Your task to perform on an android device: Open the calendar app, open the side menu, and click the "Day" option Image 0: 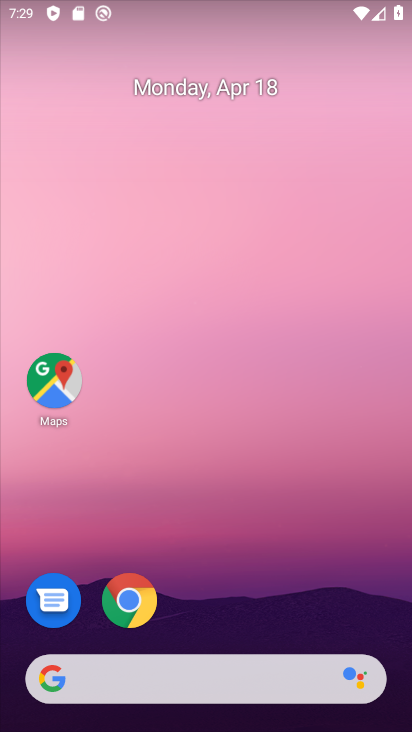
Step 0: drag from (205, 620) to (160, 104)
Your task to perform on an android device: Open the calendar app, open the side menu, and click the "Day" option Image 1: 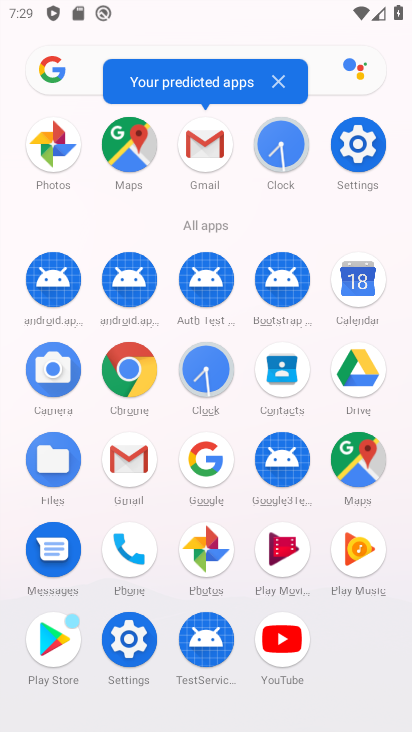
Step 1: click (356, 283)
Your task to perform on an android device: Open the calendar app, open the side menu, and click the "Day" option Image 2: 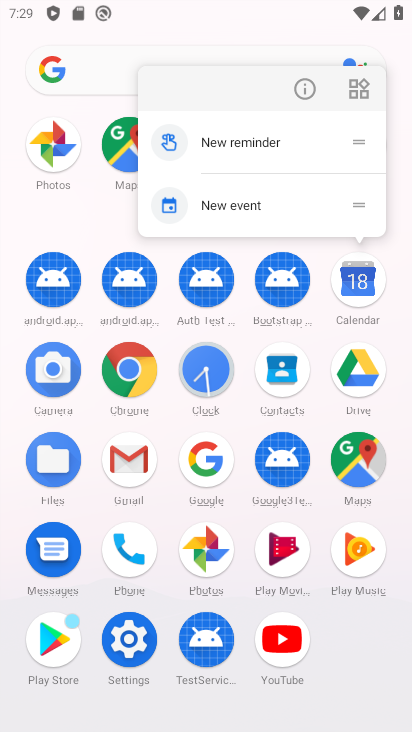
Step 2: click (355, 284)
Your task to perform on an android device: Open the calendar app, open the side menu, and click the "Day" option Image 3: 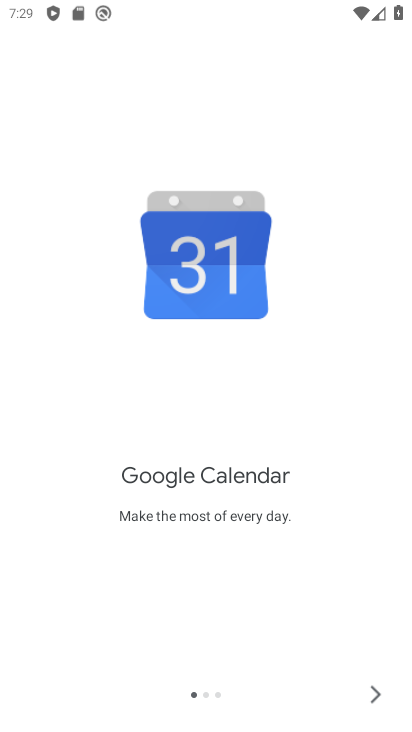
Step 3: click (377, 687)
Your task to perform on an android device: Open the calendar app, open the side menu, and click the "Day" option Image 4: 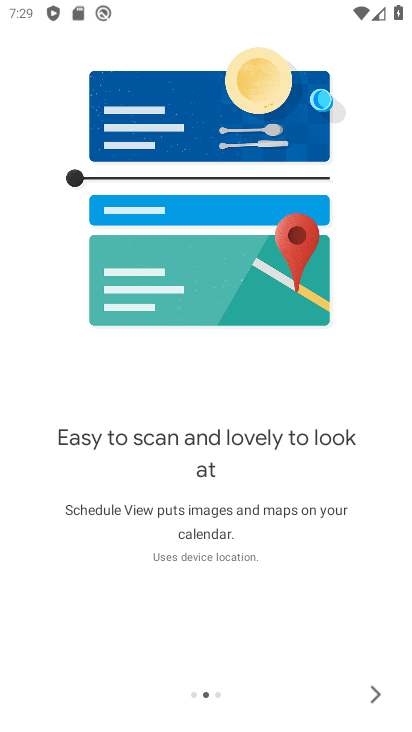
Step 4: click (376, 686)
Your task to perform on an android device: Open the calendar app, open the side menu, and click the "Day" option Image 5: 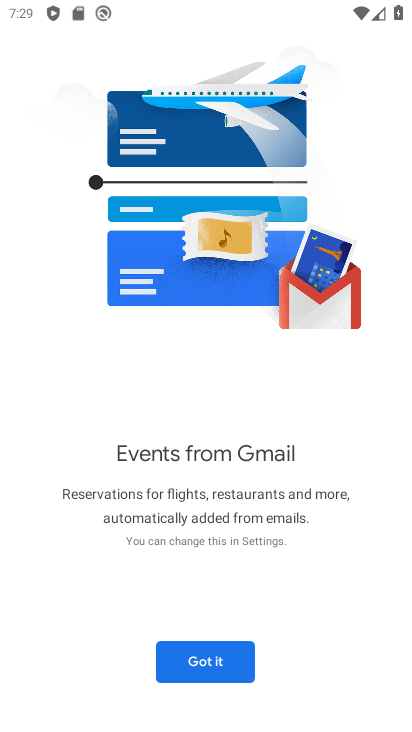
Step 5: click (196, 666)
Your task to perform on an android device: Open the calendar app, open the side menu, and click the "Day" option Image 6: 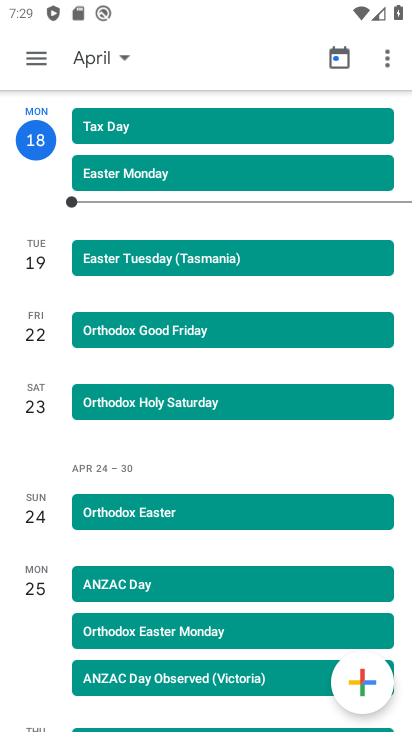
Step 6: click (38, 71)
Your task to perform on an android device: Open the calendar app, open the side menu, and click the "Day" option Image 7: 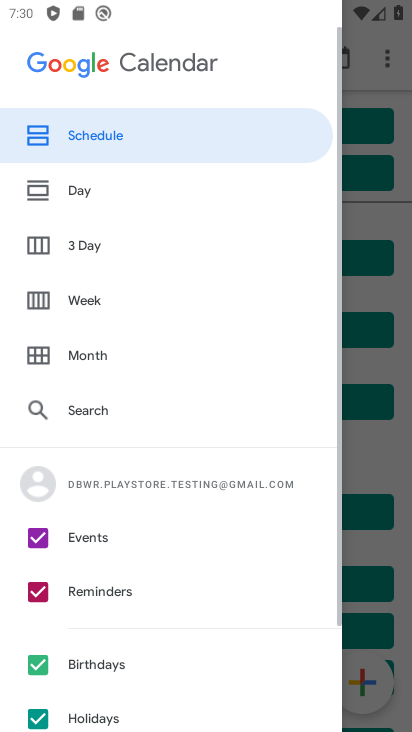
Step 7: click (78, 185)
Your task to perform on an android device: Open the calendar app, open the side menu, and click the "Day" option Image 8: 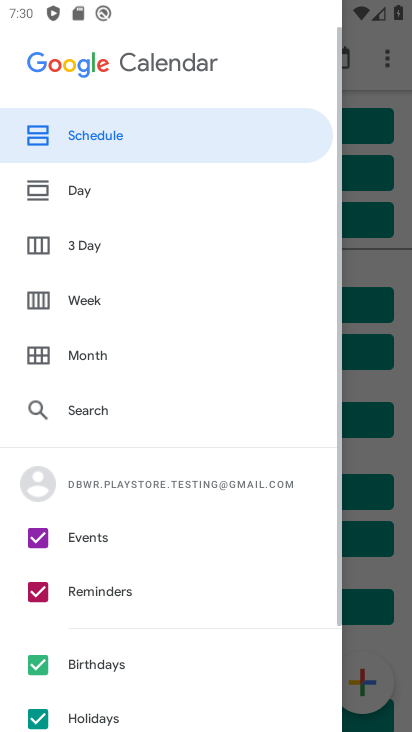
Step 8: click (87, 183)
Your task to perform on an android device: Open the calendar app, open the side menu, and click the "Day" option Image 9: 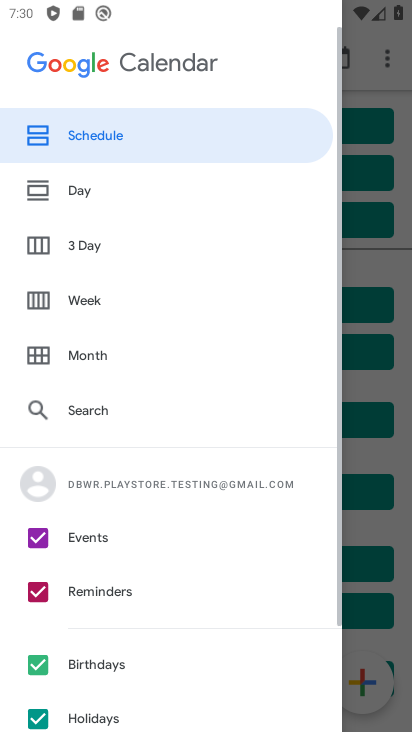
Step 9: click (87, 183)
Your task to perform on an android device: Open the calendar app, open the side menu, and click the "Day" option Image 10: 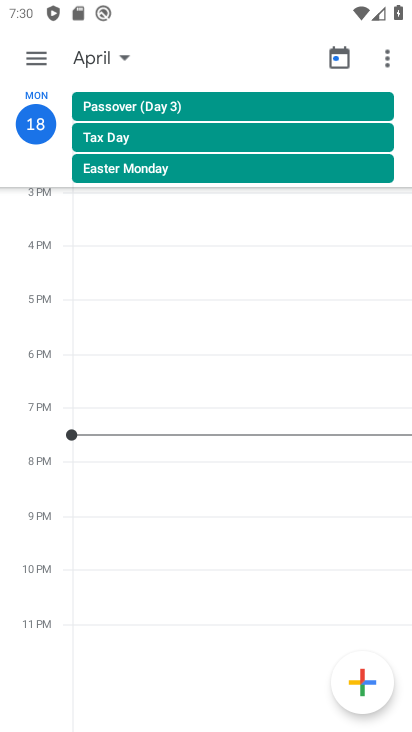
Step 10: task complete